Your task to perform on an android device: set default search engine in the chrome app Image 0: 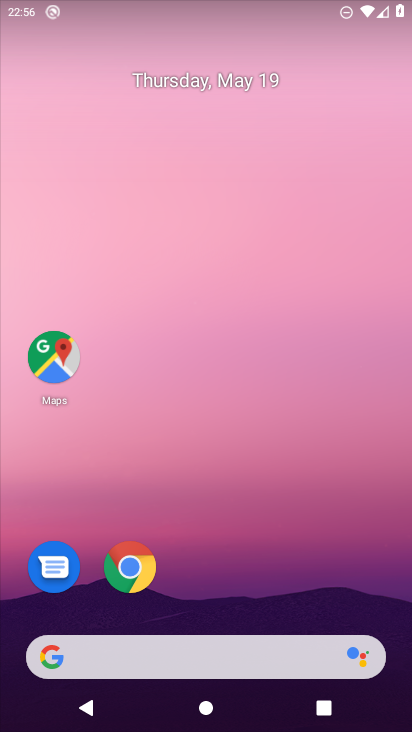
Step 0: press home button
Your task to perform on an android device: set default search engine in the chrome app Image 1: 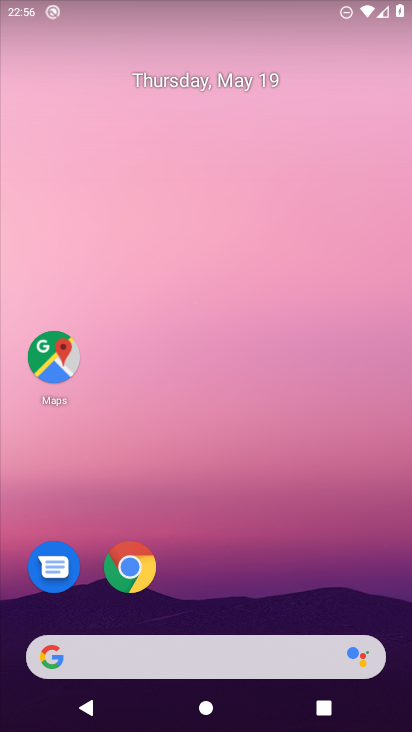
Step 1: click (128, 563)
Your task to perform on an android device: set default search engine in the chrome app Image 2: 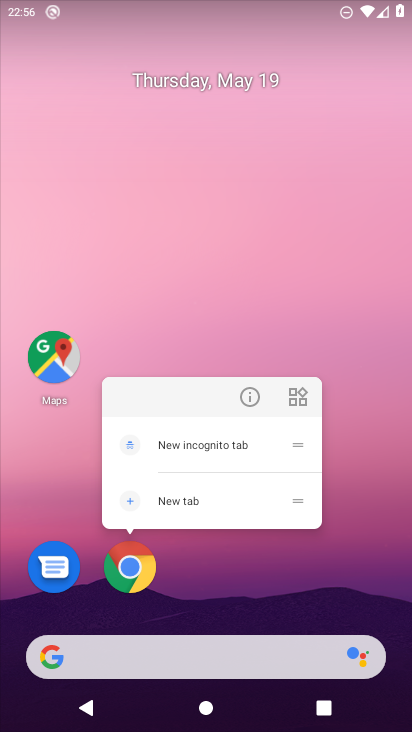
Step 2: click (131, 555)
Your task to perform on an android device: set default search engine in the chrome app Image 3: 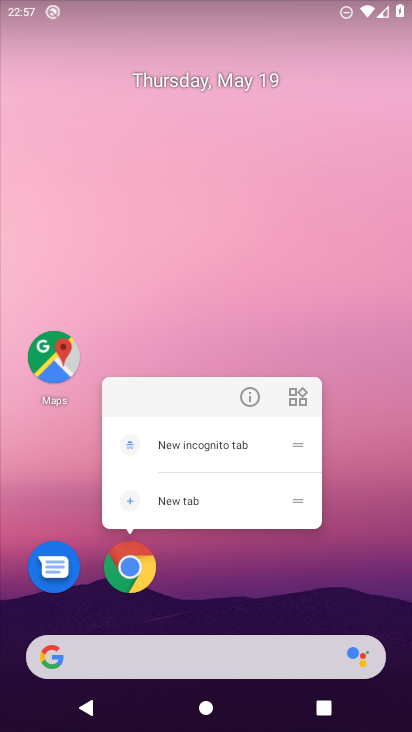
Step 3: click (128, 561)
Your task to perform on an android device: set default search engine in the chrome app Image 4: 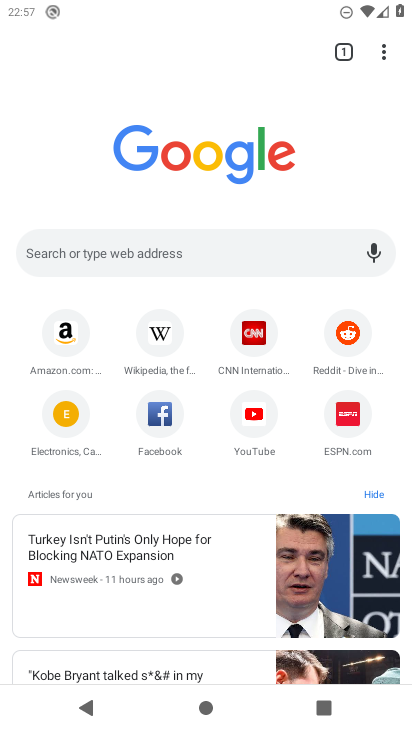
Step 4: click (383, 45)
Your task to perform on an android device: set default search engine in the chrome app Image 5: 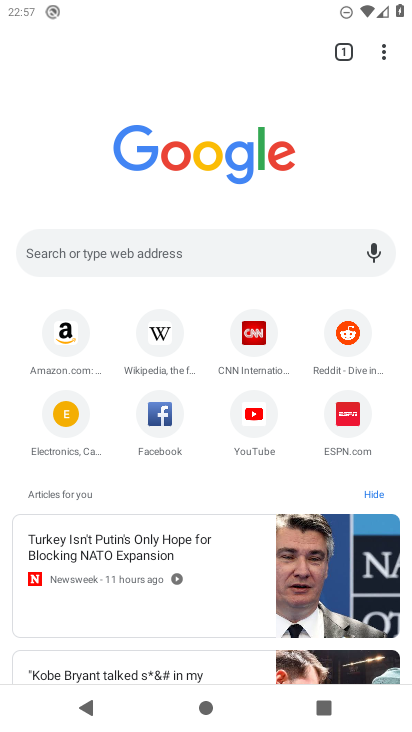
Step 5: click (382, 52)
Your task to perform on an android device: set default search engine in the chrome app Image 6: 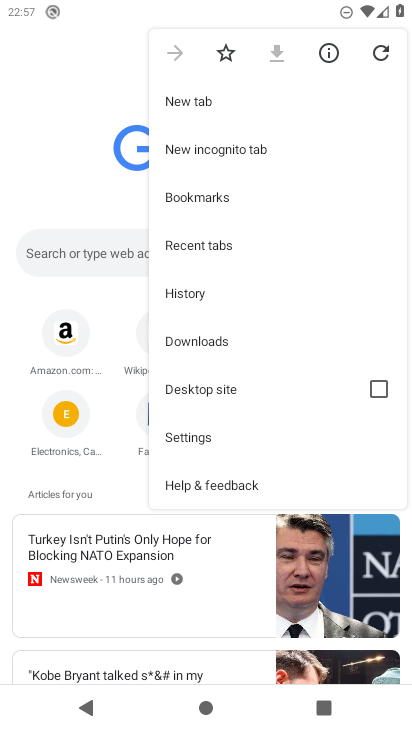
Step 6: click (217, 433)
Your task to perform on an android device: set default search engine in the chrome app Image 7: 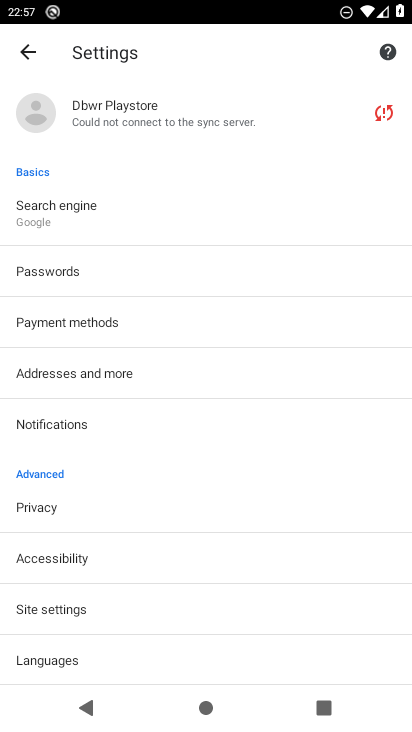
Step 7: drag from (161, 586) to (157, 484)
Your task to perform on an android device: set default search engine in the chrome app Image 8: 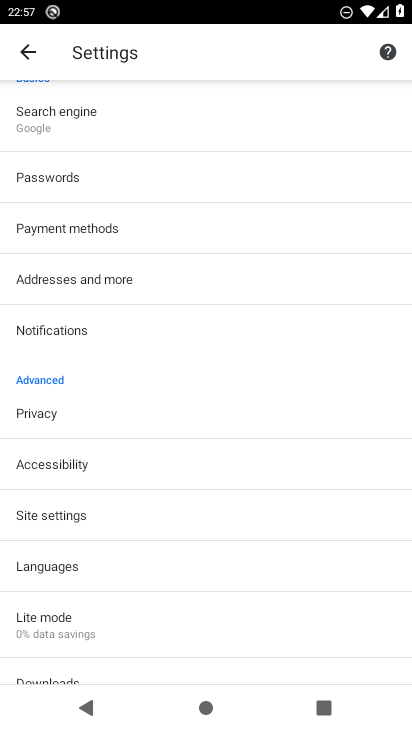
Step 8: click (88, 159)
Your task to perform on an android device: set default search engine in the chrome app Image 9: 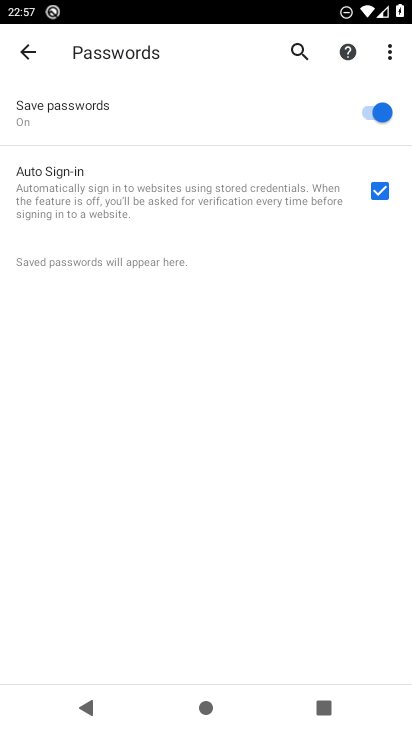
Step 9: click (33, 62)
Your task to perform on an android device: set default search engine in the chrome app Image 10: 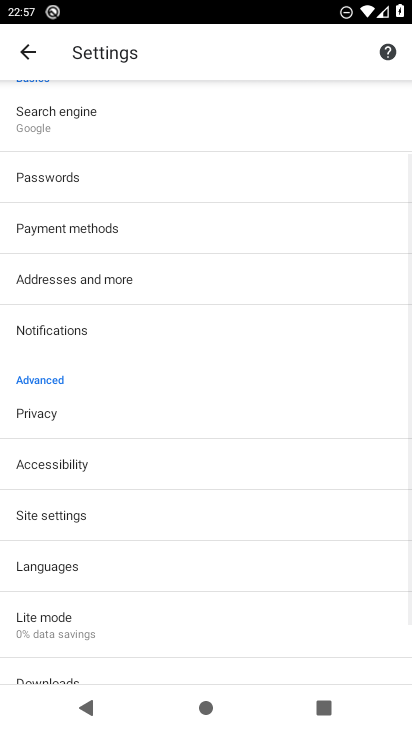
Step 10: click (101, 125)
Your task to perform on an android device: set default search engine in the chrome app Image 11: 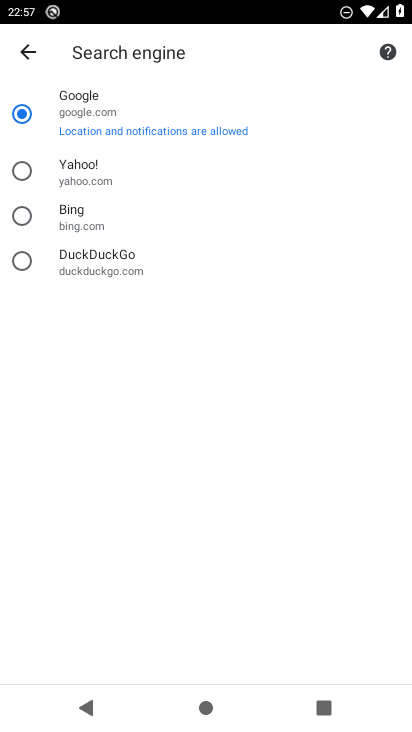
Step 11: click (26, 213)
Your task to perform on an android device: set default search engine in the chrome app Image 12: 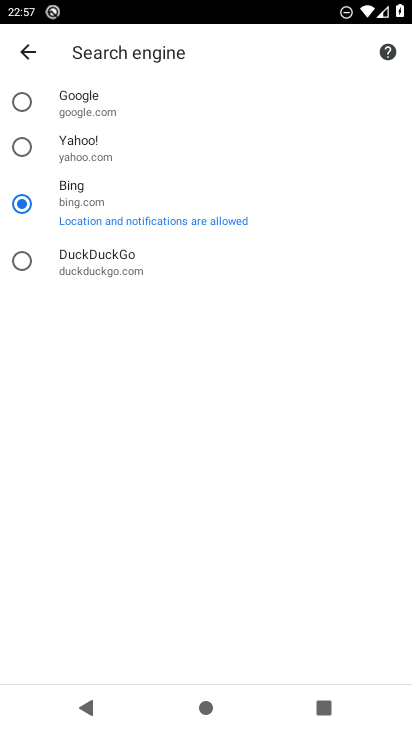
Step 12: task complete